Your task to perform on an android device: change keyboard looks Image 0: 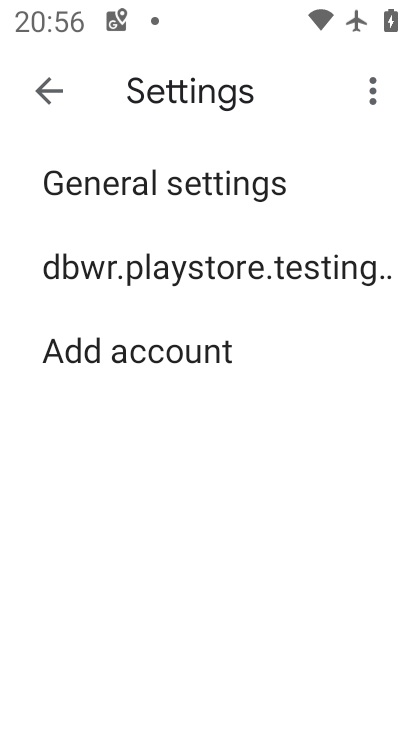
Step 0: press back button
Your task to perform on an android device: change keyboard looks Image 1: 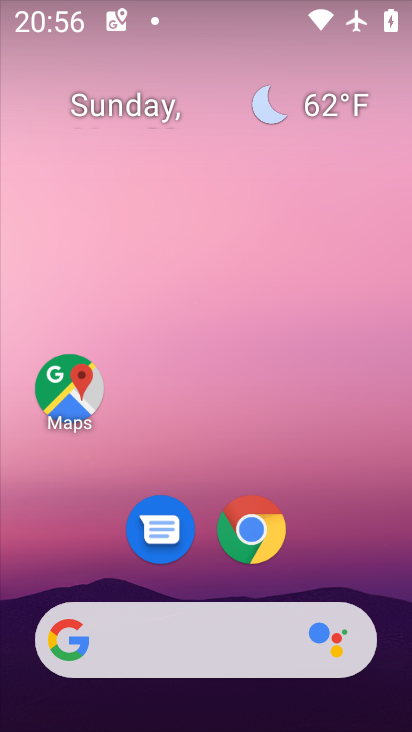
Step 1: drag from (248, 718) to (94, 233)
Your task to perform on an android device: change keyboard looks Image 2: 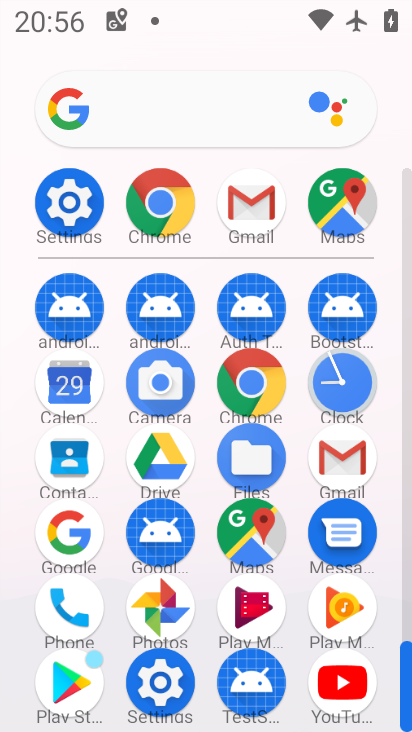
Step 2: click (76, 205)
Your task to perform on an android device: change keyboard looks Image 3: 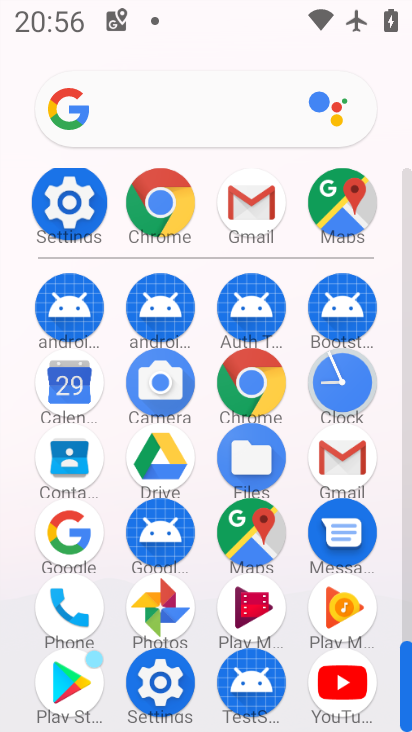
Step 3: click (71, 195)
Your task to perform on an android device: change keyboard looks Image 4: 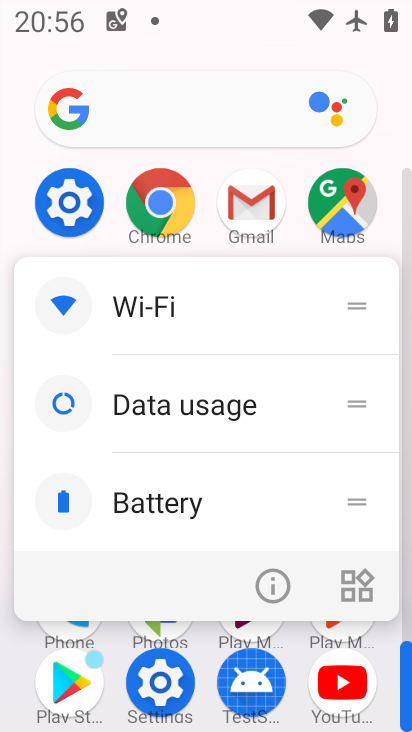
Step 4: click (80, 202)
Your task to perform on an android device: change keyboard looks Image 5: 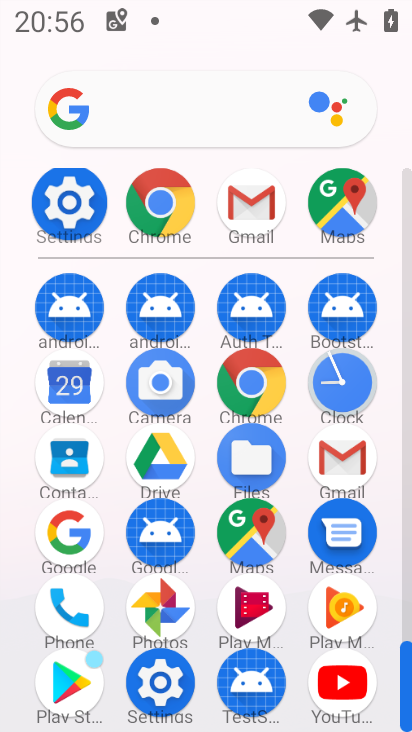
Step 5: click (76, 199)
Your task to perform on an android device: change keyboard looks Image 6: 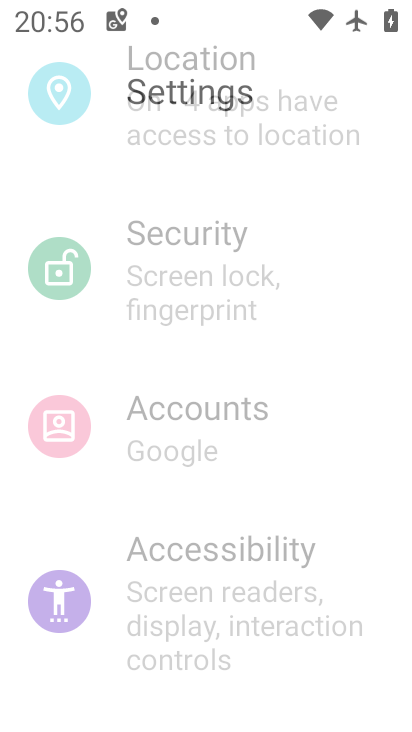
Step 6: click (76, 204)
Your task to perform on an android device: change keyboard looks Image 7: 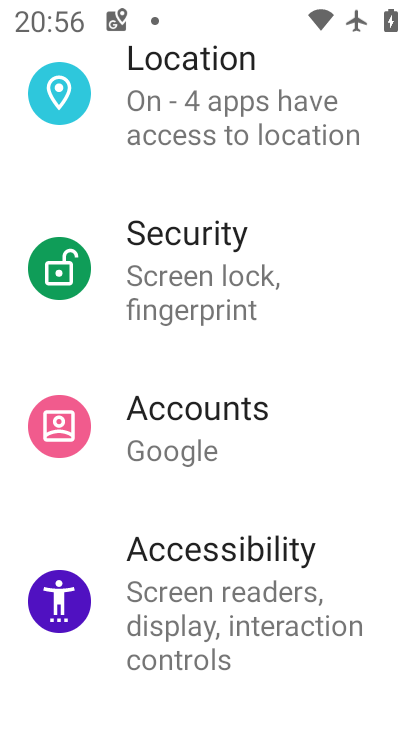
Step 7: drag from (220, 594) to (154, 209)
Your task to perform on an android device: change keyboard looks Image 8: 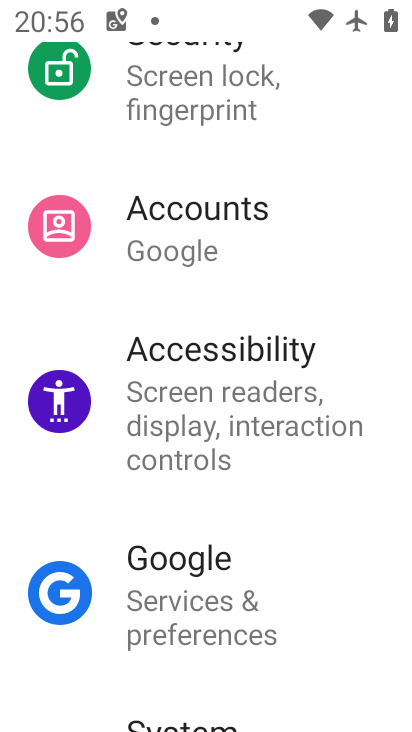
Step 8: drag from (218, 440) to (188, 182)
Your task to perform on an android device: change keyboard looks Image 9: 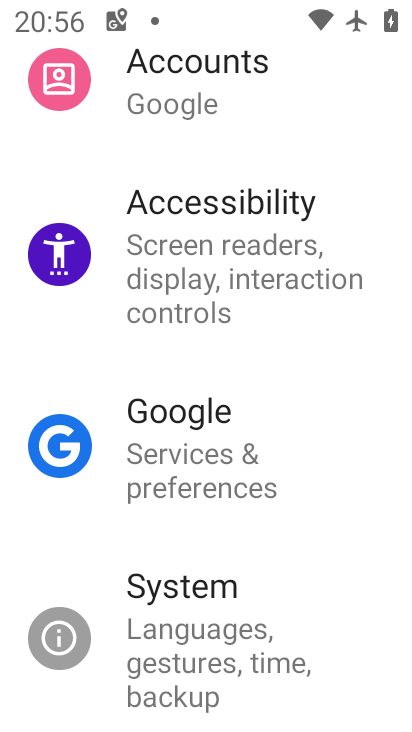
Step 9: drag from (177, 421) to (166, 126)
Your task to perform on an android device: change keyboard looks Image 10: 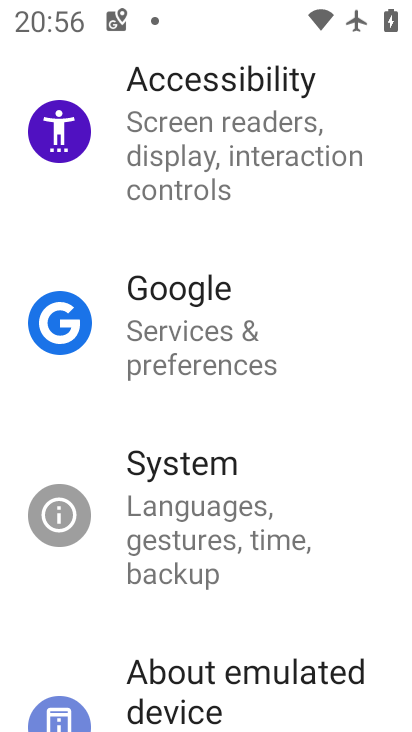
Step 10: drag from (217, 525) to (177, 65)
Your task to perform on an android device: change keyboard looks Image 11: 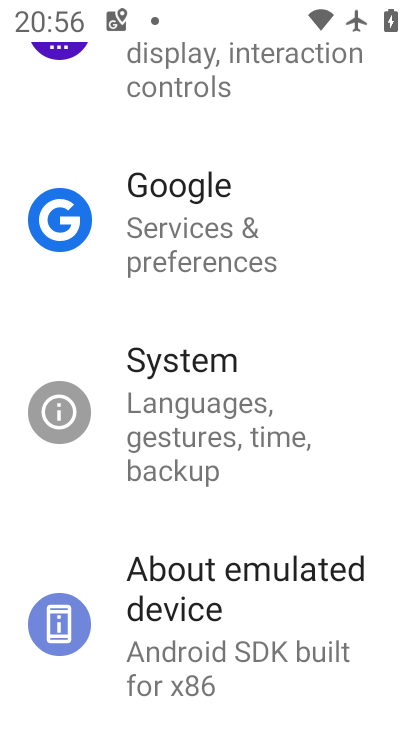
Step 11: drag from (228, 527) to (223, 196)
Your task to perform on an android device: change keyboard looks Image 12: 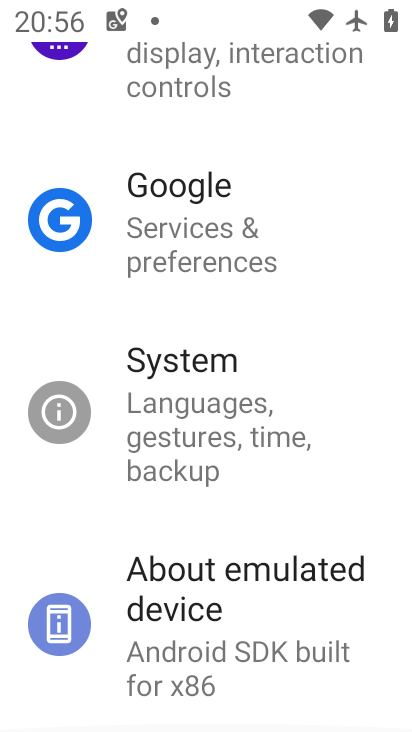
Step 12: drag from (222, 386) to (208, 122)
Your task to perform on an android device: change keyboard looks Image 13: 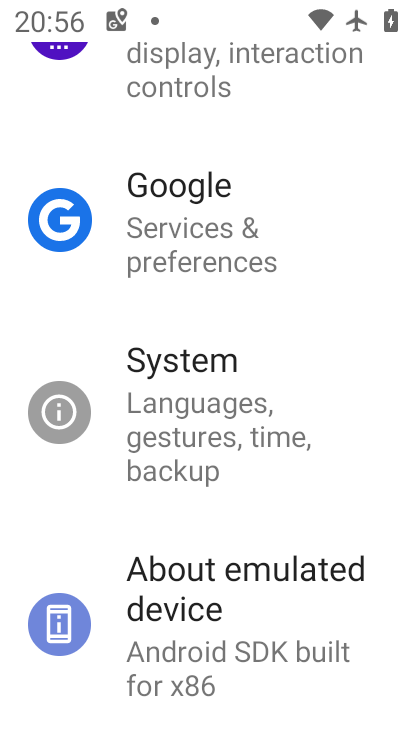
Step 13: click (185, 453)
Your task to perform on an android device: change keyboard looks Image 14: 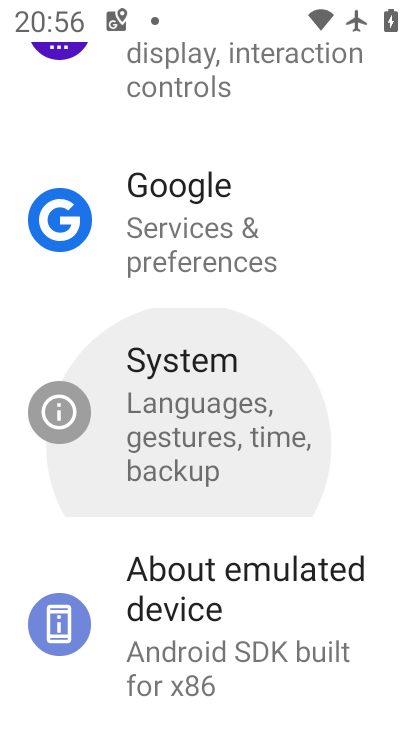
Step 14: click (185, 453)
Your task to perform on an android device: change keyboard looks Image 15: 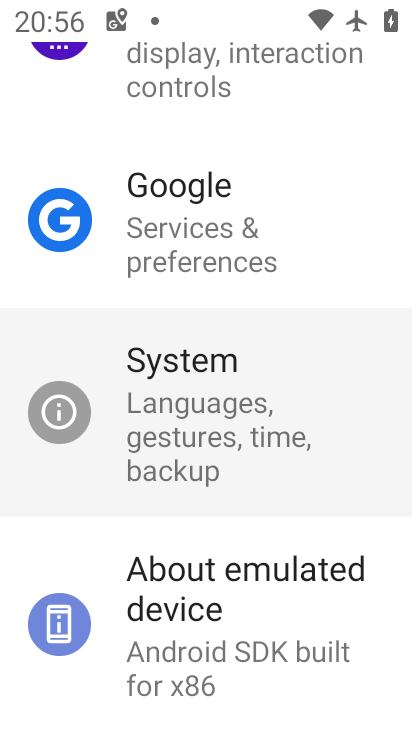
Step 15: click (185, 453)
Your task to perform on an android device: change keyboard looks Image 16: 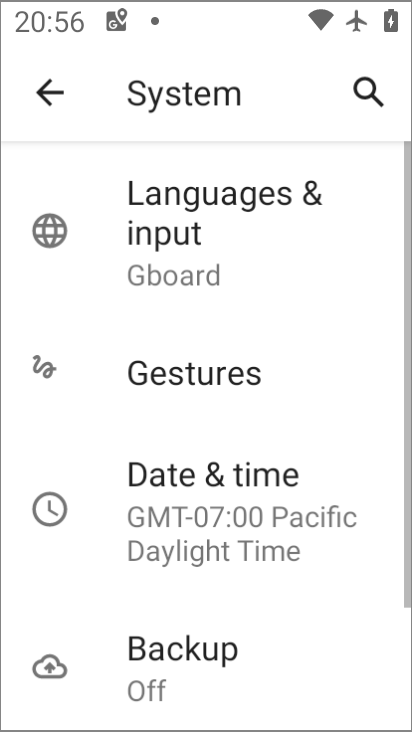
Step 16: click (185, 453)
Your task to perform on an android device: change keyboard looks Image 17: 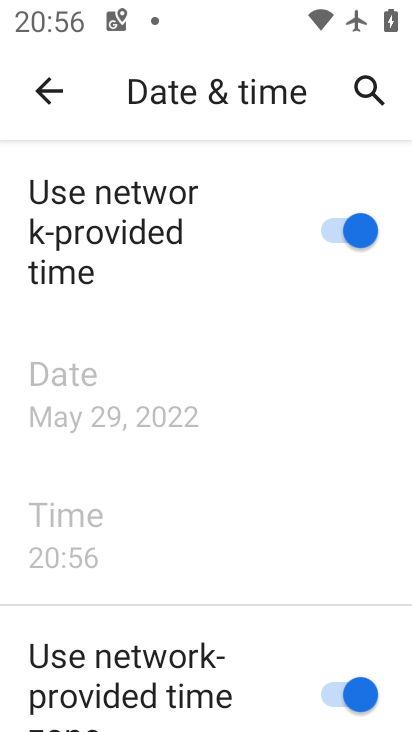
Step 17: click (50, 93)
Your task to perform on an android device: change keyboard looks Image 18: 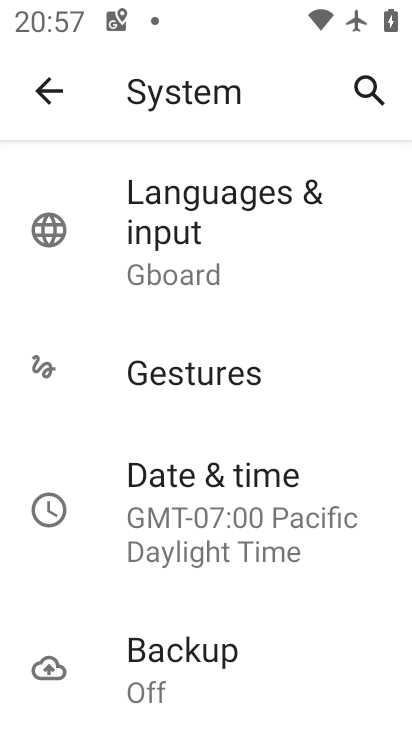
Step 18: click (167, 257)
Your task to perform on an android device: change keyboard looks Image 19: 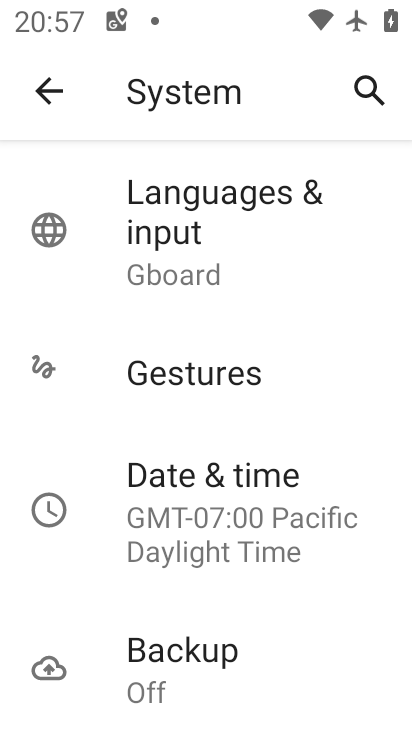
Step 19: click (167, 257)
Your task to perform on an android device: change keyboard looks Image 20: 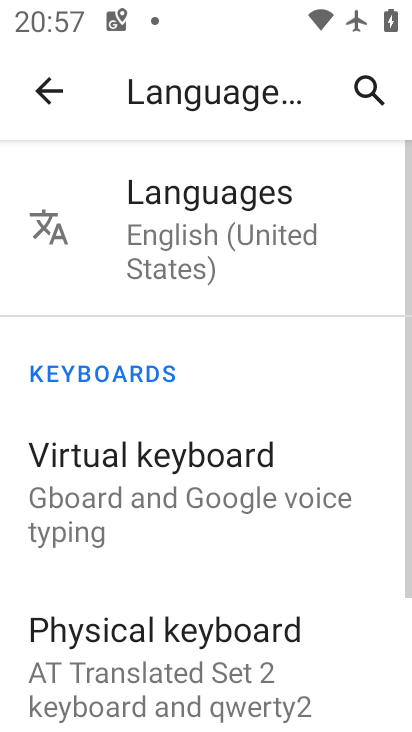
Step 20: click (72, 489)
Your task to perform on an android device: change keyboard looks Image 21: 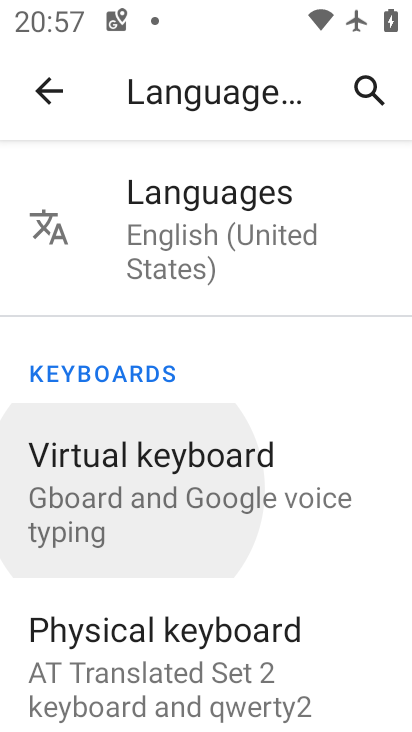
Step 21: drag from (72, 490) to (108, 511)
Your task to perform on an android device: change keyboard looks Image 22: 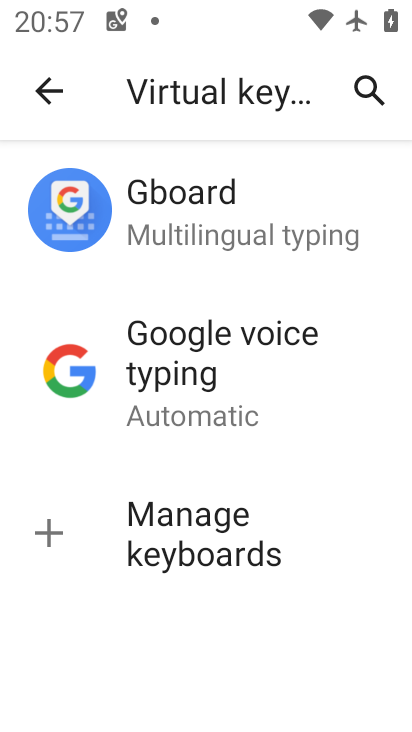
Step 22: click (162, 210)
Your task to perform on an android device: change keyboard looks Image 23: 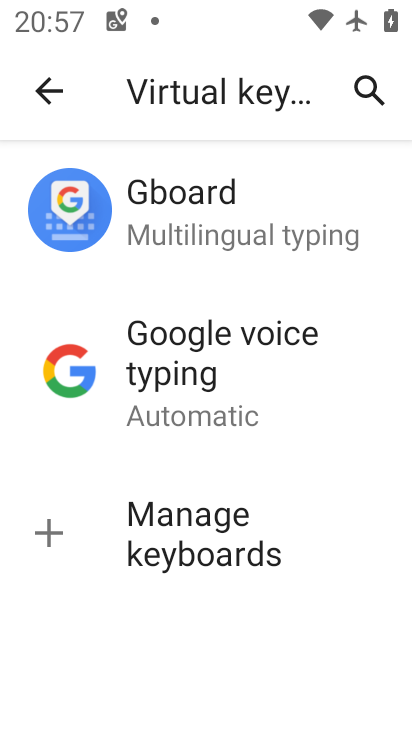
Step 23: click (162, 210)
Your task to perform on an android device: change keyboard looks Image 24: 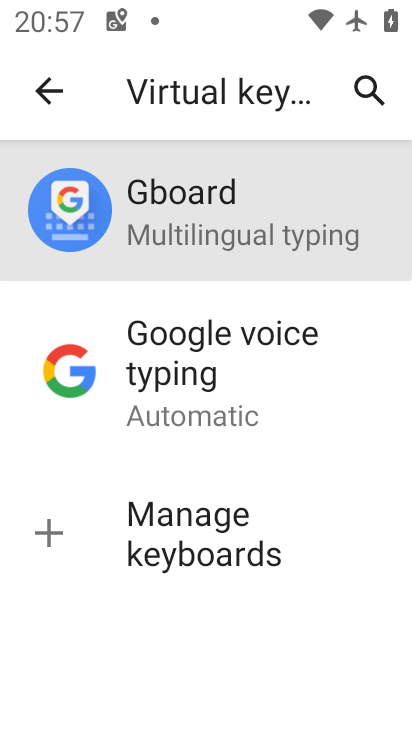
Step 24: click (162, 210)
Your task to perform on an android device: change keyboard looks Image 25: 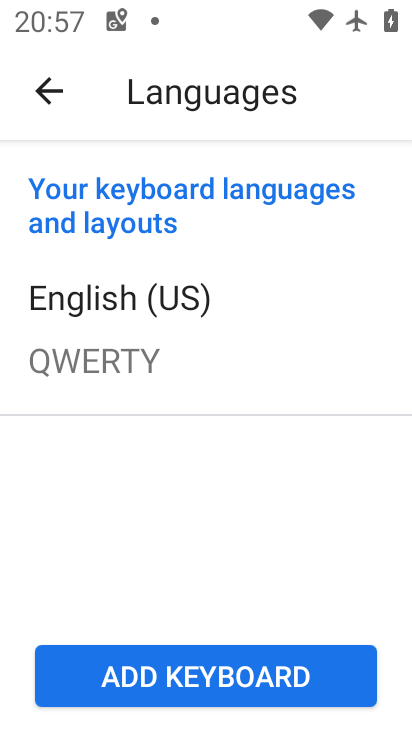
Step 25: click (42, 89)
Your task to perform on an android device: change keyboard looks Image 26: 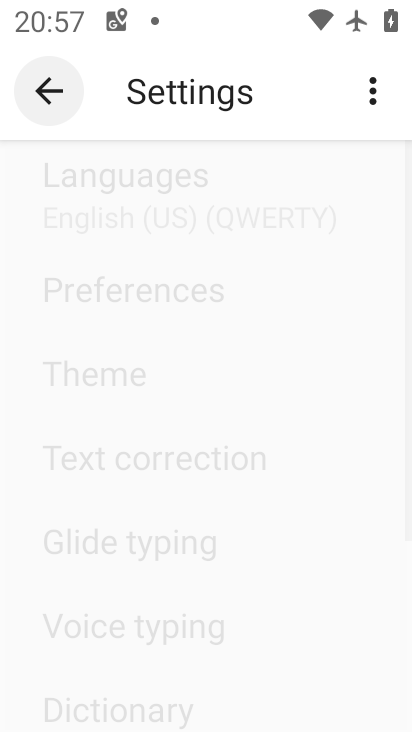
Step 26: click (43, 88)
Your task to perform on an android device: change keyboard looks Image 27: 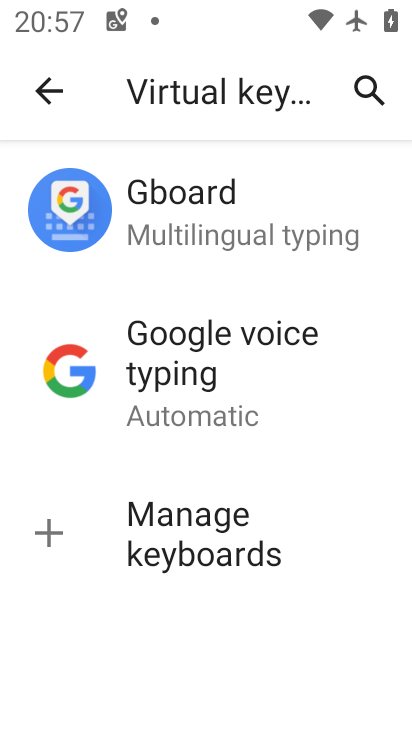
Step 27: click (95, 374)
Your task to perform on an android device: change keyboard looks Image 28: 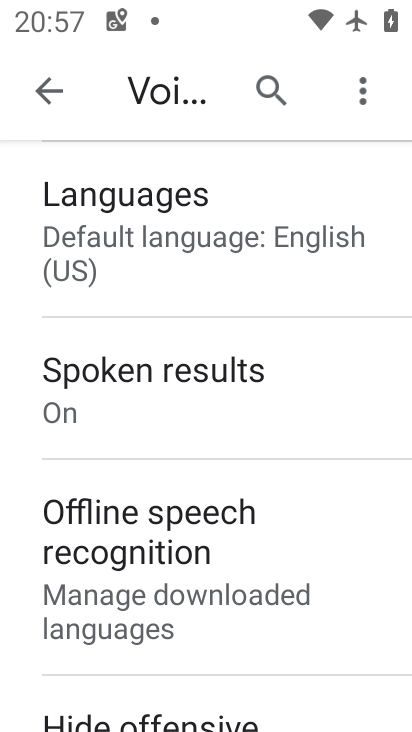
Step 28: click (91, 394)
Your task to perform on an android device: change keyboard looks Image 29: 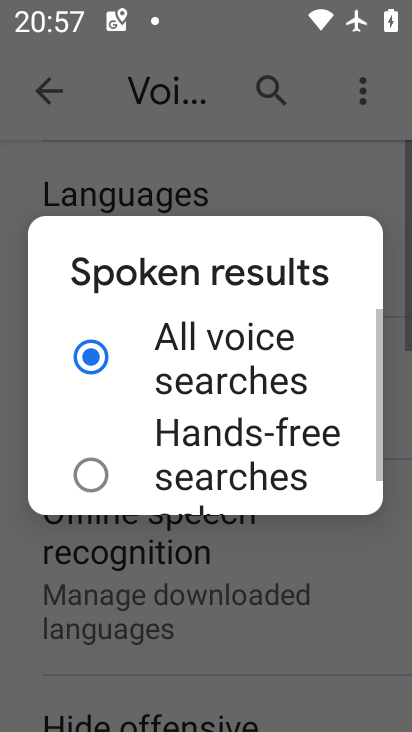
Step 29: click (166, 195)
Your task to perform on an android device: change keyboard looks Image 30: 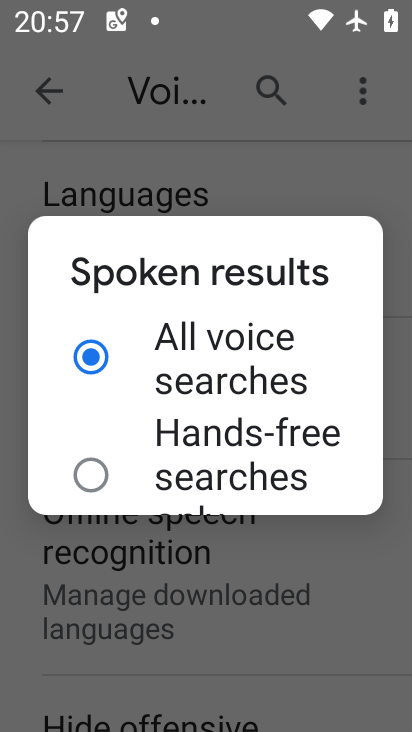
Step 30: click (180, 363)
Your task to perform on an android device: change keyboard looks Image 31: 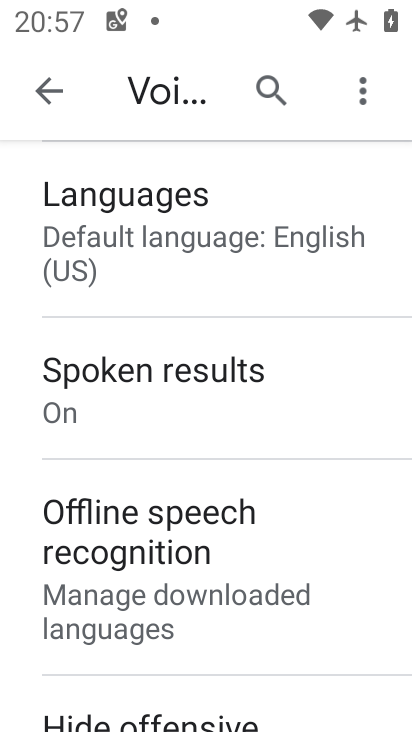
Step 31: click (180, 363)
Your task to perform on an android device: change keyboard looks Image 32: 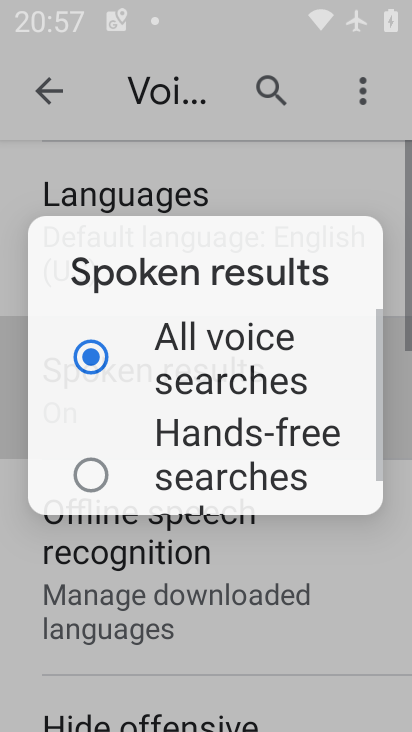
Step 32: click (182, 362)
Your task to perform on an android device: change keyboard looks Image 33: 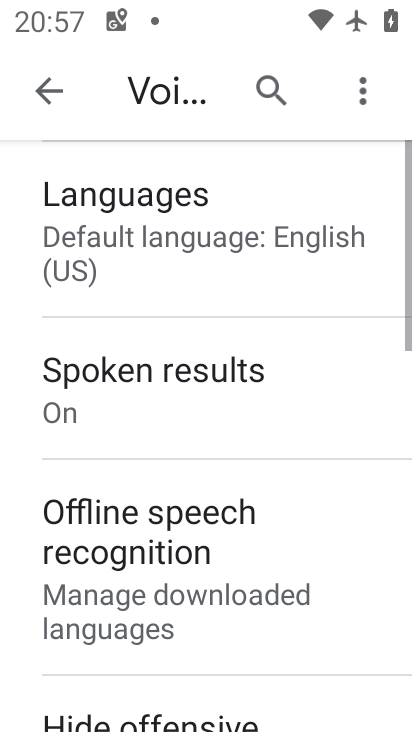
Step 33: click (46, 84)
Your task to perform on an android device: change keyboard looks Image 34: 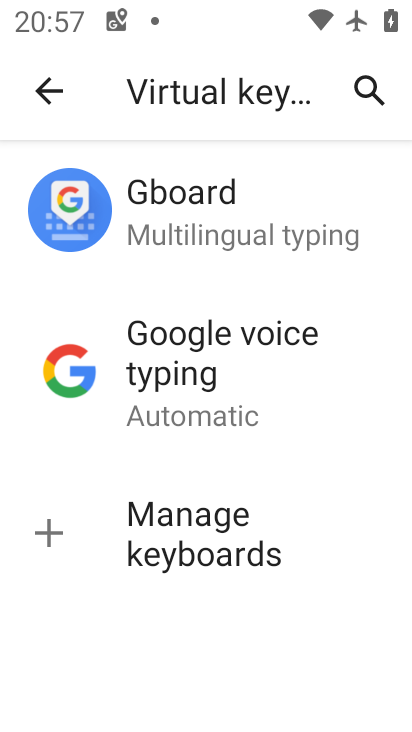
Step 34: click (210, 227)
Your task to perform on an android device: change keyboard looks Image 35: 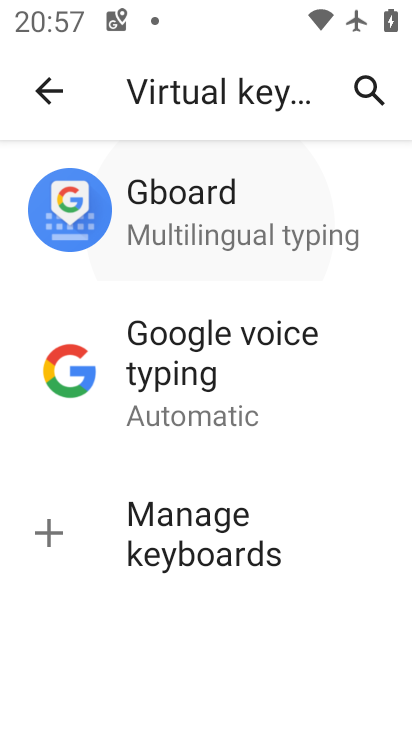
Step 35: click (209, 227)
Your task to perform on an android device: change keyboard looks Image 36: 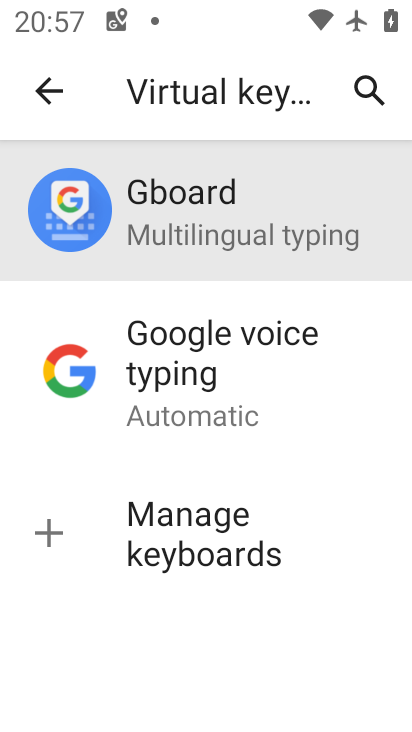
Step 36: click (209, 227)
Your task to perform on an android device: change keyboard looks Image 37: 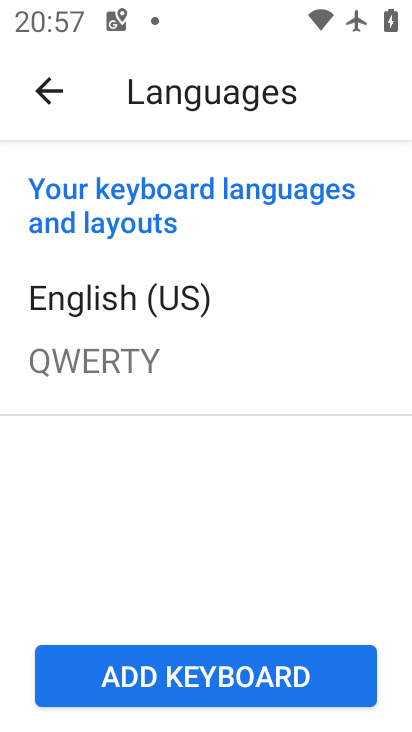
Step 37: click (46, 87)
Your task to perform on an android device: change keyboard looks Image 38: 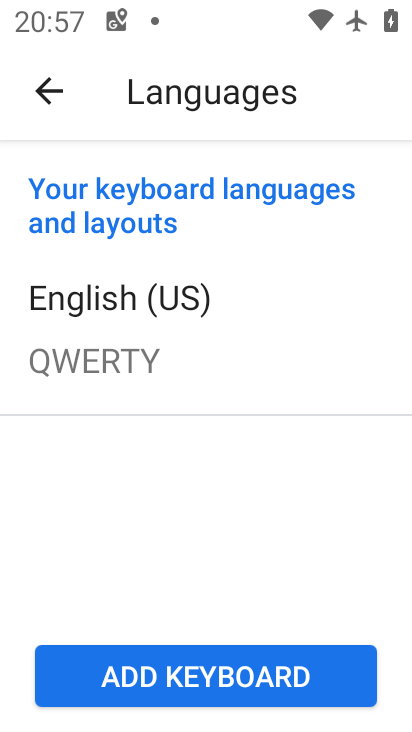
Step 38: click (46, 87)
Your task to perform on an android device: change keyboard looks Image 39: 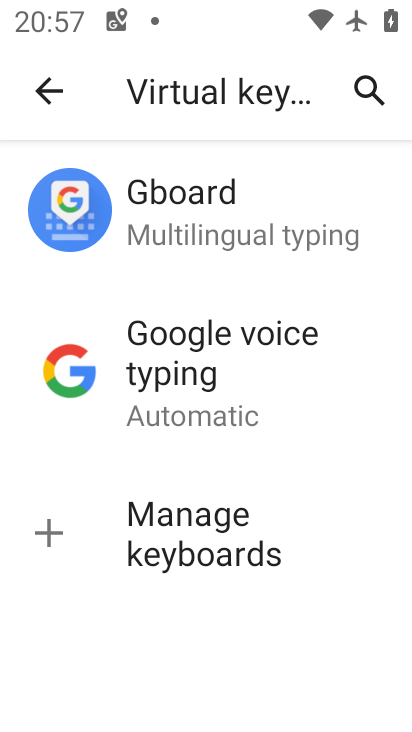
Step 39: click (191, 227)
Your task to perform on an android device: change keyboard looks Image 40: 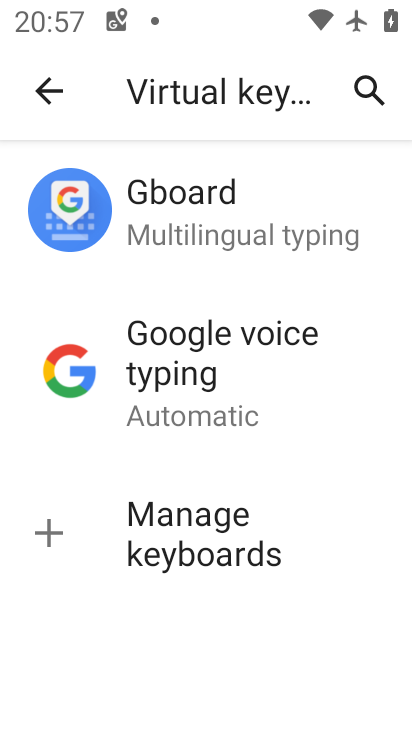
Step 40: click (192, 226)
Your task to perform on an android device: change keyboard looks Image 41: 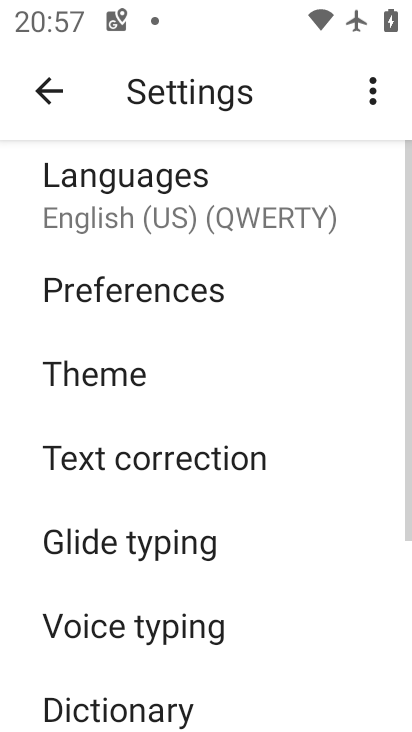
Step 41: click (105, 379)
Your task to perform on an android device: change keyboard looks Image 42: 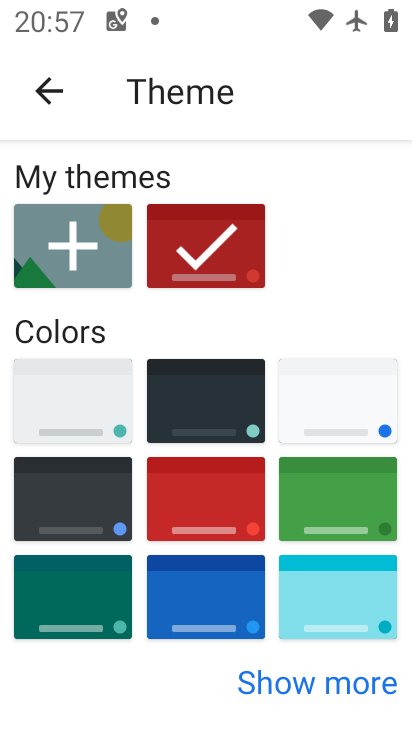
Step 42: click (202, 490)
Your task to perform on an android device: change keyboard looks Image 43: 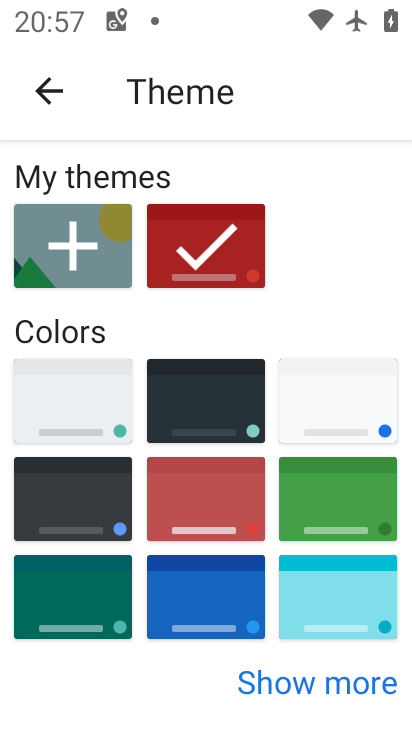
Step 43: click (201, 490)
Your task to perform on an android device: change keyboard looks Image 44: 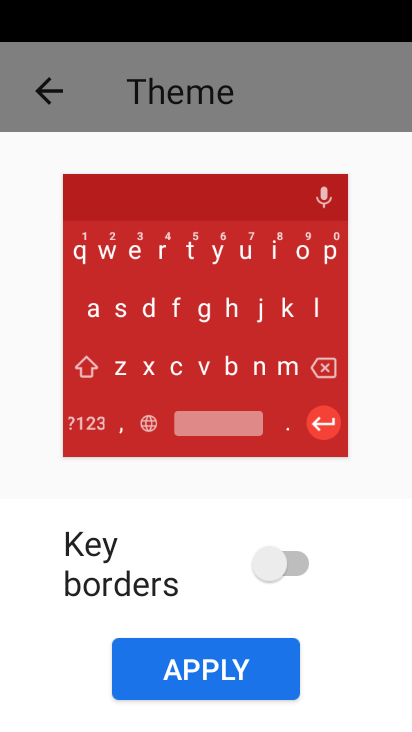
Step 44: click (201, 490)
Your task to perform on an android device: change keyboard looks Image 45: 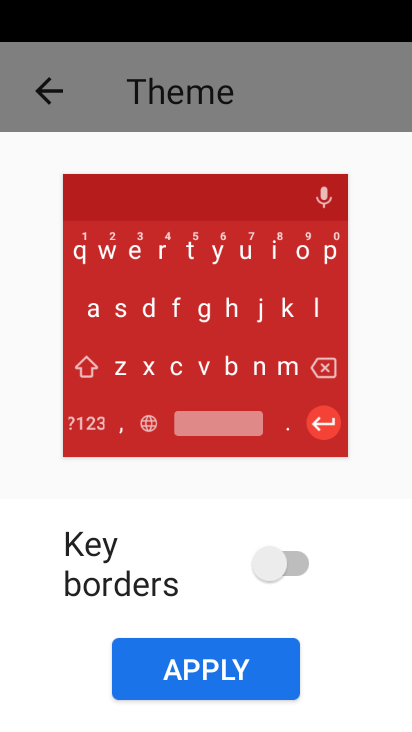
Step 45: click (213, 671)
Your task to perform on an android device: change keyboard looks Image 46: 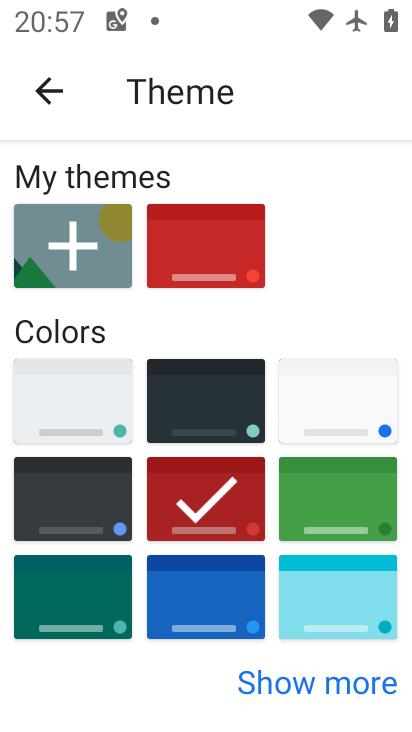
Step 46: task complete